Your task to perform on an android device: Show me productivity apps on the Play Store Image 0: 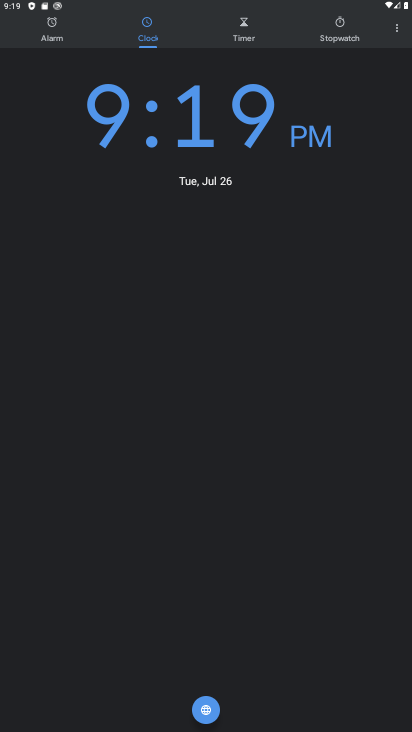
Step 0: press home button
Your task to perform on an android device: Show me productivity apps on the Play Store Image 1: 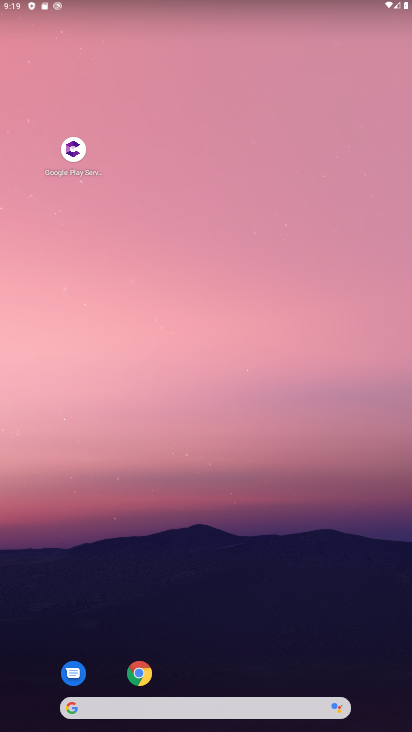
Step 1: drag from (33, 555) to (267, 150)
Your task to perform on an android device: Show me productivity apps on the Play Store Image 2: 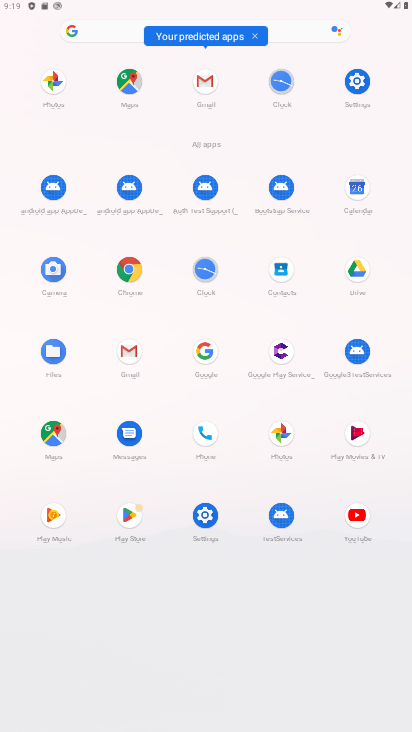
Step 2: click (133, 511)
Your task to perform on an android device: Show me productivity apps on the Play Store Image 3: 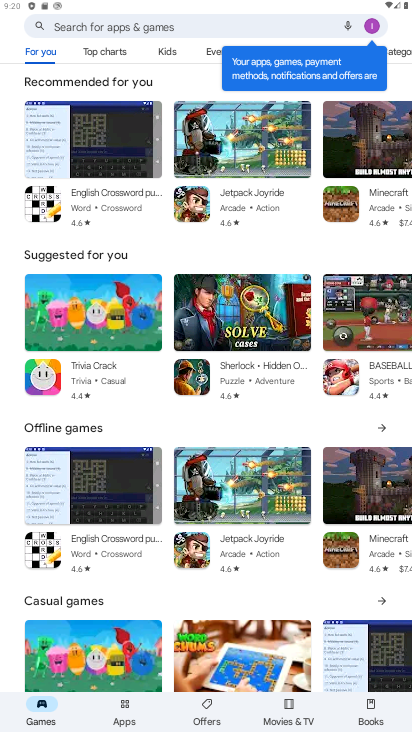
Step 3: task complete